Your task to perform on an android device: Open Google Chrome Image 0: 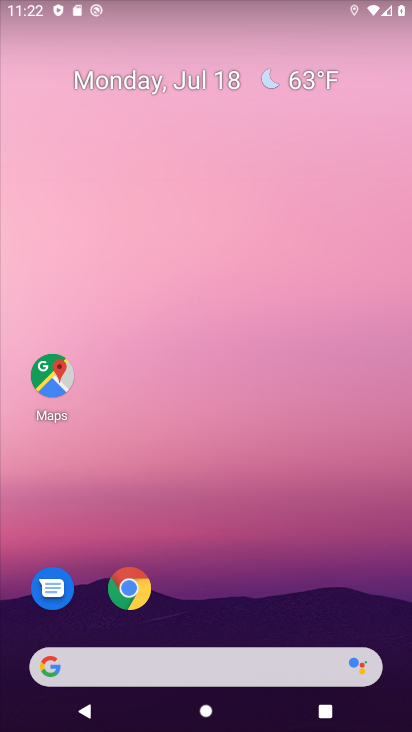
Step 0: drag from (271, 501) to (232, 36)
Your task to perform on an android device: Open Google Chrome Image 1: 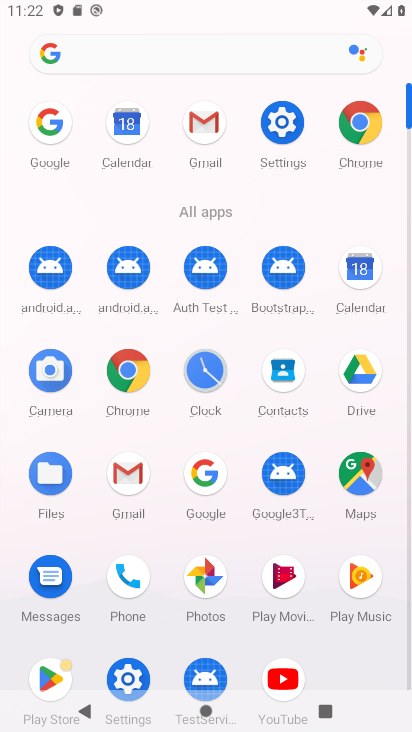
Step 1: click (357, 117)
Your task to perform on an android device: Open Google Chrome Image 2: 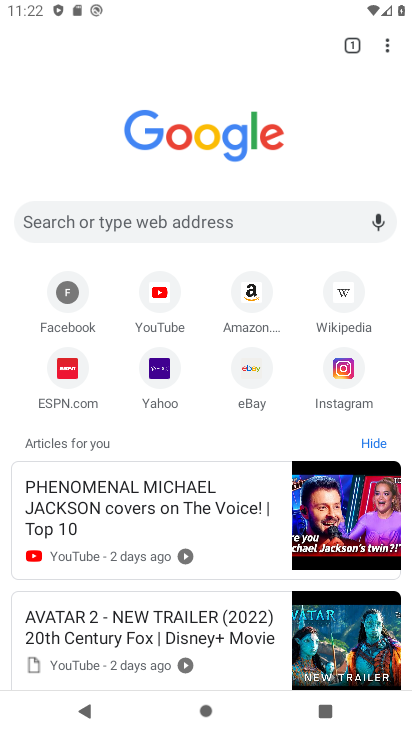
Step 2: task complete